Your task to perform on an android device: Show me recent news Image 0: 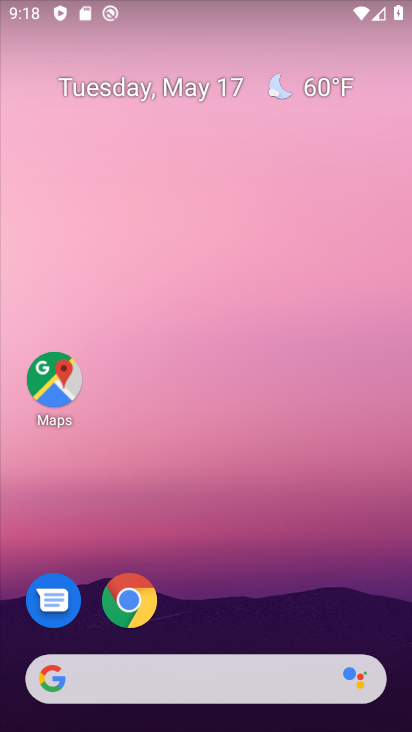
Step 0: drag from (392, 680) to (399, 366)
Your task to perform on an android device: Show me recent news Image 1: 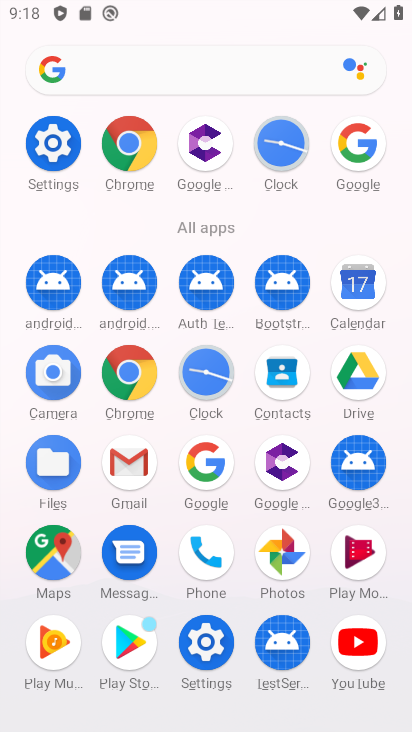
Step 1: click (208, 474)
Your task to perform on an android device: Show me recent news Image 2: 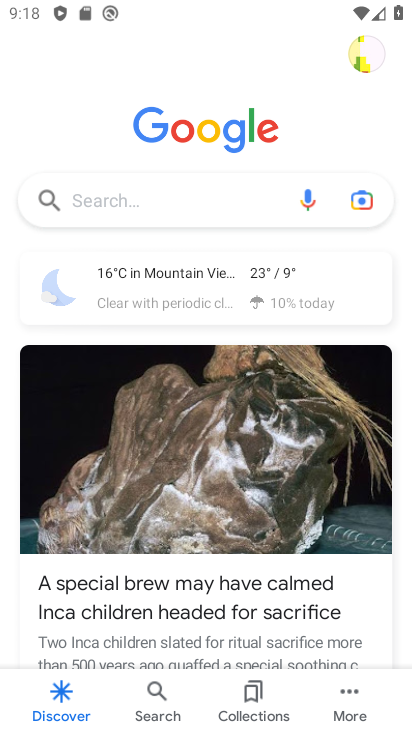
Step 2: task complete